Your task to perform on an android device: Set the phone to "Do not disturb". Image 0: 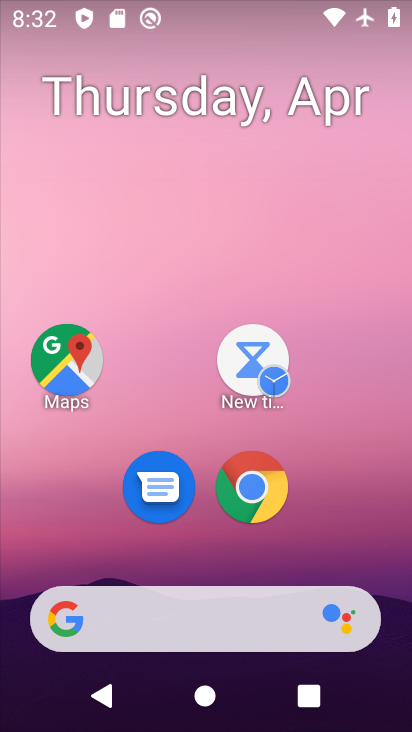
Step 0: drag from (312, 518) to (293, 85)
Your task to perform on an android device: Set the phone to "Do not disturb". Image 1: 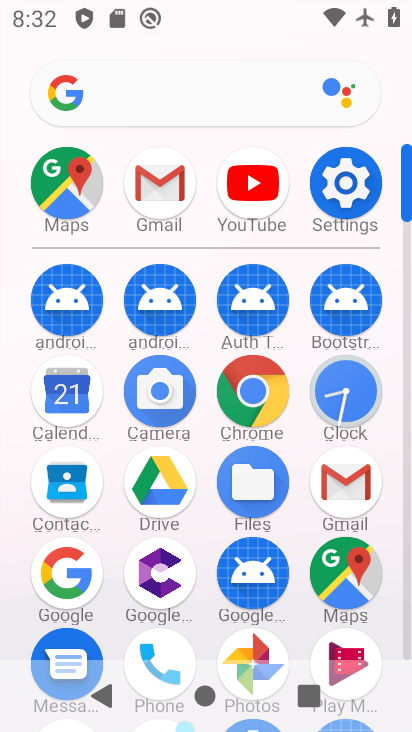
Step 1: click (346, 201)
Your task to perform on an android device: Set the phone to "Do not disturb". Image 2: 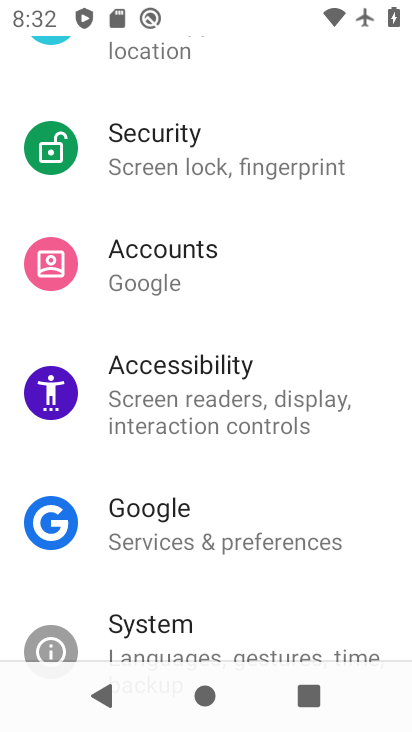
Step 2: drag from (377, 110) to (314, 639)
Your task to perform on an android device: Set the phone to "Do not disturb". Image 3: 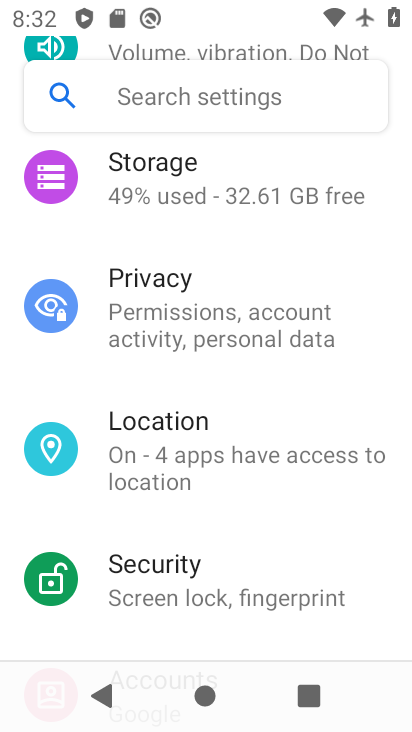
Step 3: drag from (346, 220) to (324, 408)
Your task to perform on an android device: Set the phone to "Do not disturb". Image 4: 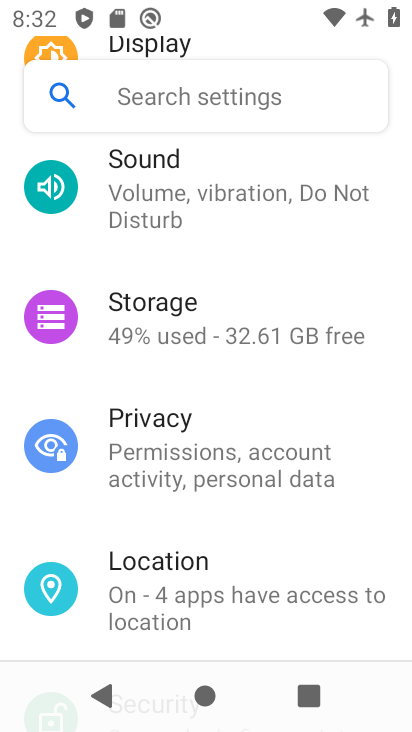
Step 4: click (197, 219)
Your task to perform on an android device: Set the phone to "Do not disturb". Image 5: 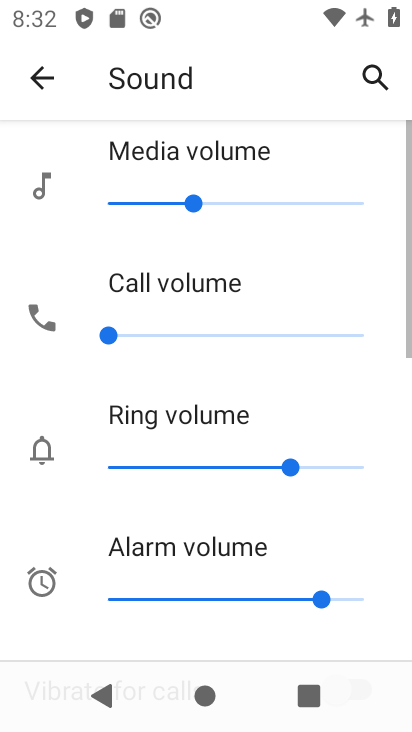
Step 5: drag from (259, 551) to (241, 206)
Your task to perform on an android device: Set the phone to "Do not disturb". Image 6: 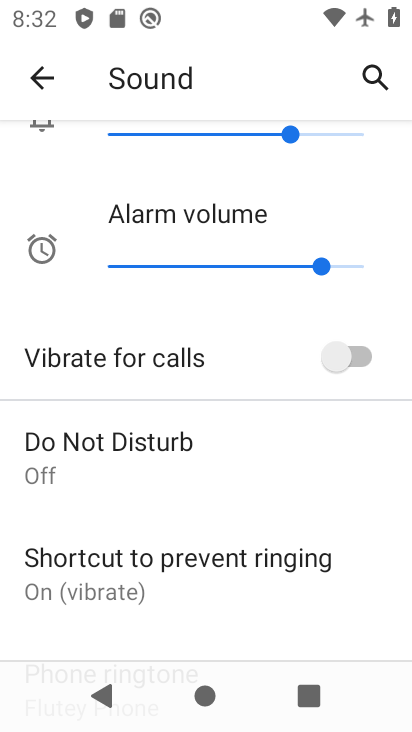
Step 6: click (117, 457)
Your task to perform on an android device: Set the phone to "Do not disturb". Image 7: 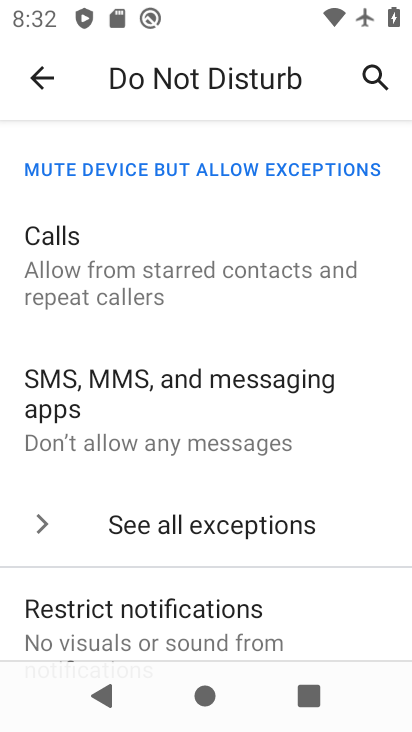
Step 7: drag from (220, 543) to (222, 156)
Your task to perform on an android device: Set the phone to "Do not disturb". Image 8: 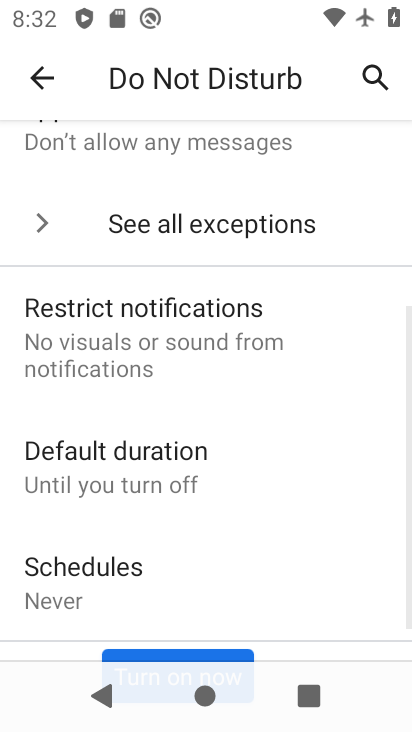
Step 8: drag from (170, 603) to (165, 347)
Your task to perform on an android device: Set the phone to "Do not disturb". Image 9: 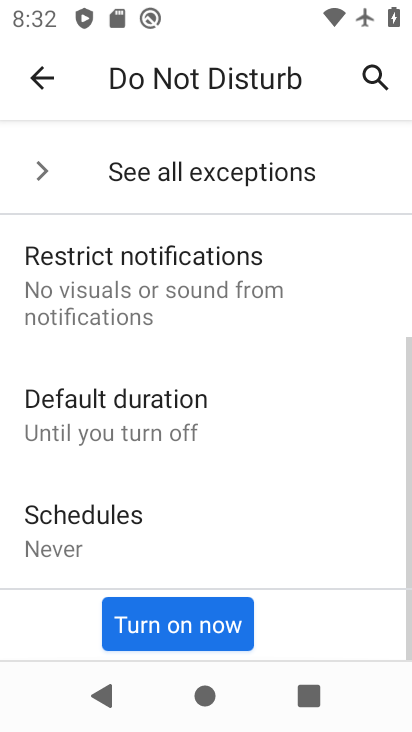
Step 9: click (142, 614)
Your task to perform on an android device: Set the phone to "Do not disturb". Image 10: 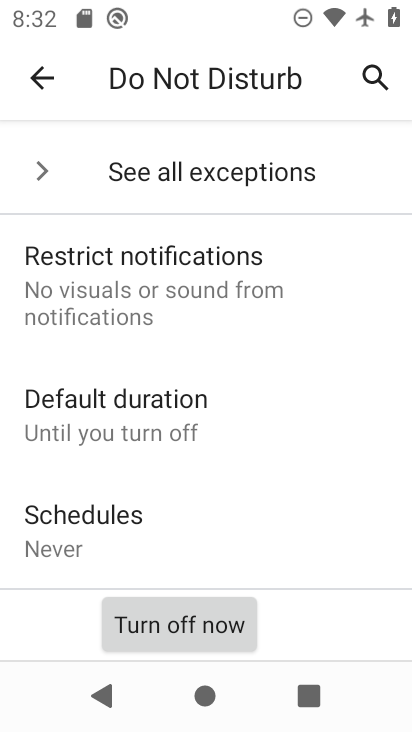
Step 10: task complete